Your task to perform on an android device: Open Chrome and go to settings Image 0: 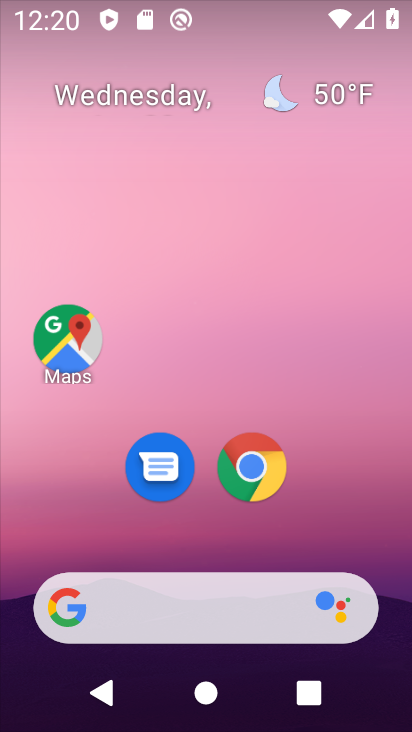
Step 0: click (256, 473)
Your task to perform on an android device: Open Chrome and go to settings Image 1: 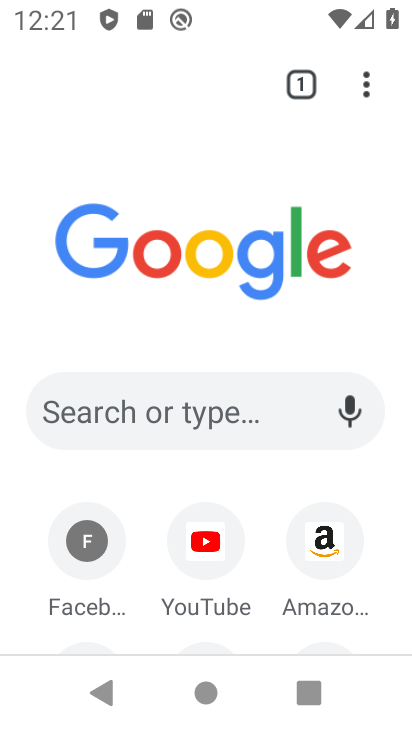
Step 1: click (368, 79)
Your task to perform on an android device: Open Chrome and go to settings Image 2: 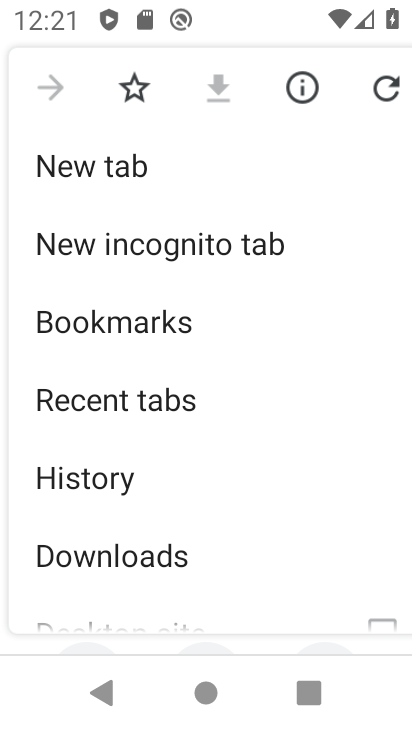
Step 2: drag from (178, 482) to (199, 127)
Your task to perform on an android device: Open Chrome and go to settings Image 3: 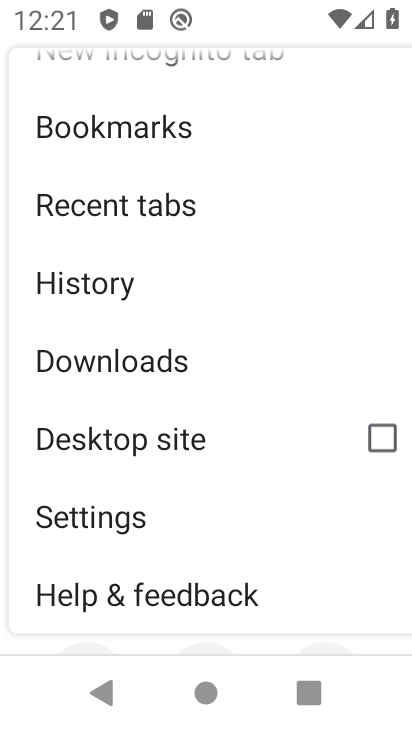
Step 3: click (169, 516)
Your task to perform on an android device: Open Chrome and go to settings Image 4: 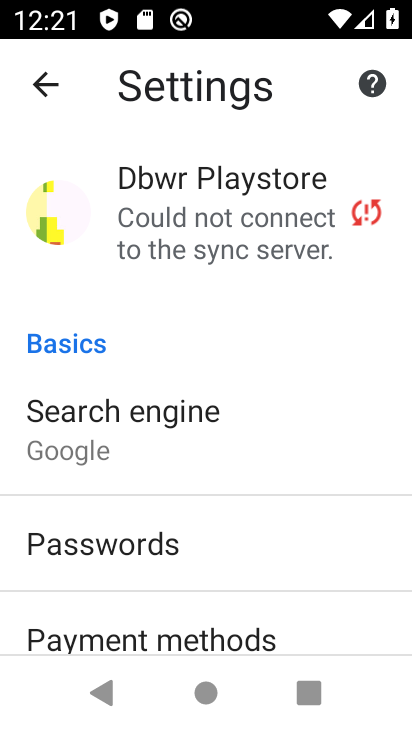
Step 4: task complete